Your task to perform on an android device: change alarm snooze length Image 0: 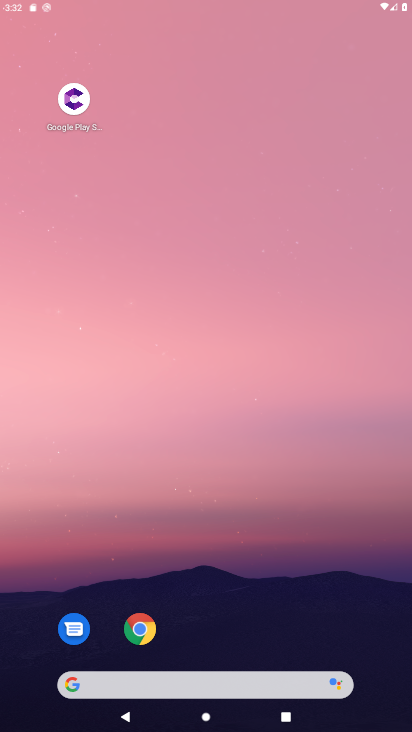
Step 0: press home button
Your task to perform on an android device: change alarm snooze length Image 1: 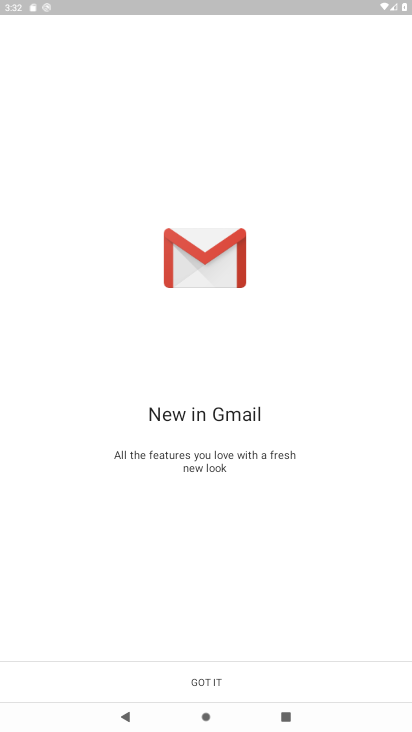
Step 1: drag from (292, 578) to (274, 116)
Your task to perform on an android device: change alarm snooze length Image 2: 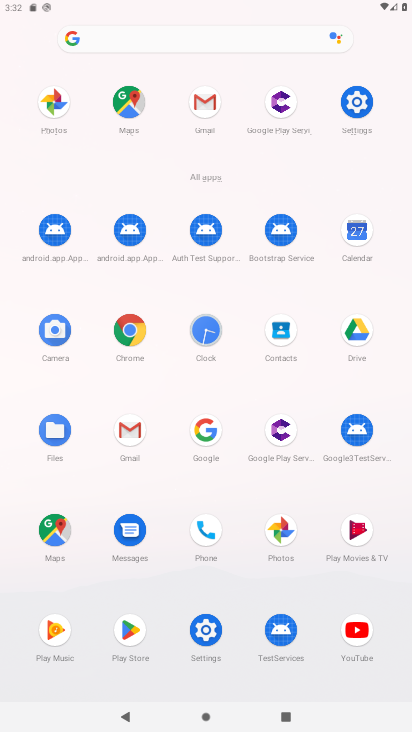
Step 2: click (207, 346)
Your task to perform on an android device: change alarm snooze length Image 3: 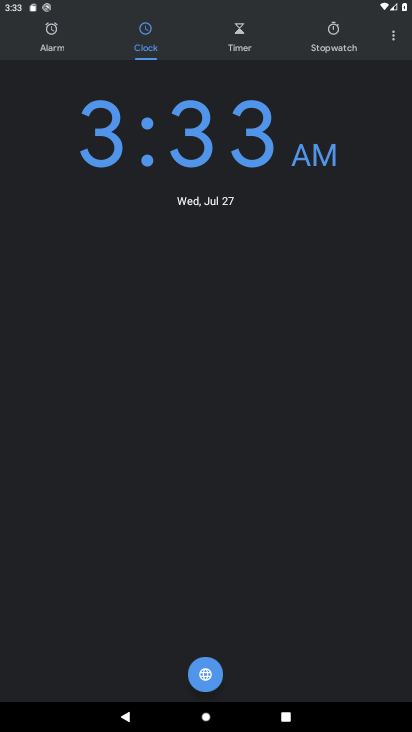
Step 3: click (395, 41)
Your task to perform on an android device: change alarm snooze length Image 4: 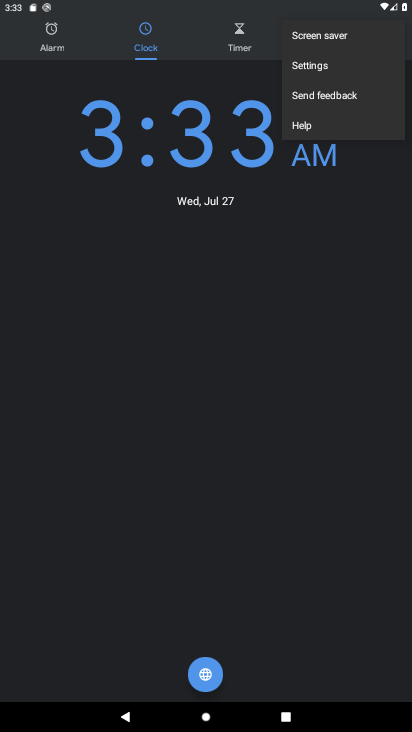
Step 4: click (316, 69)
Your task to perform on an android device: change alarm snooze length Image 5: 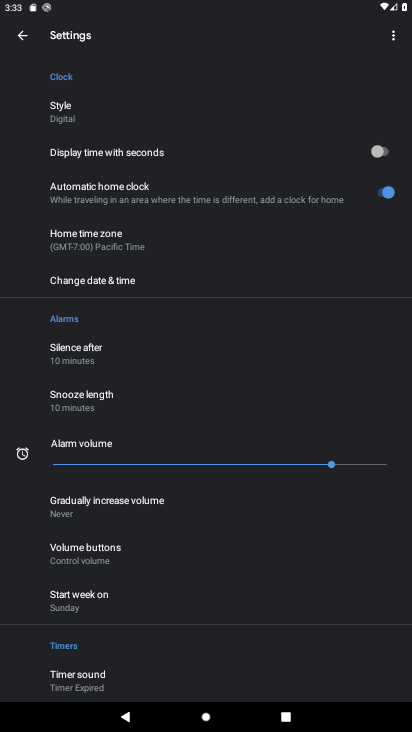
Step 5: click (96, 410)
Your task to perform on an android device: change alarm snooze length Image 6: 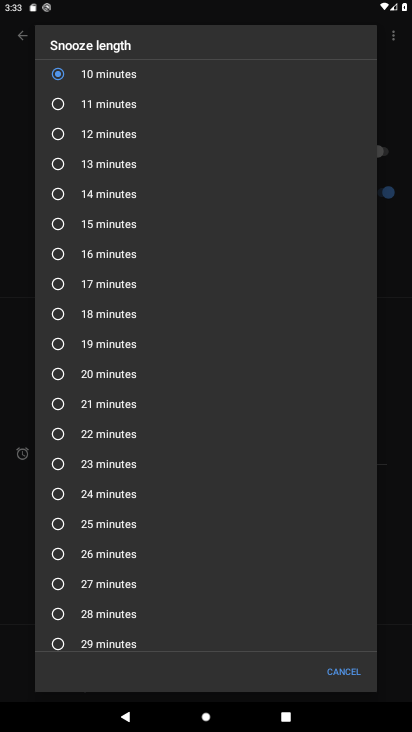
Step 6: click (87, 626)
Your task to perform on an android device: change alarm snooze length Image 7: 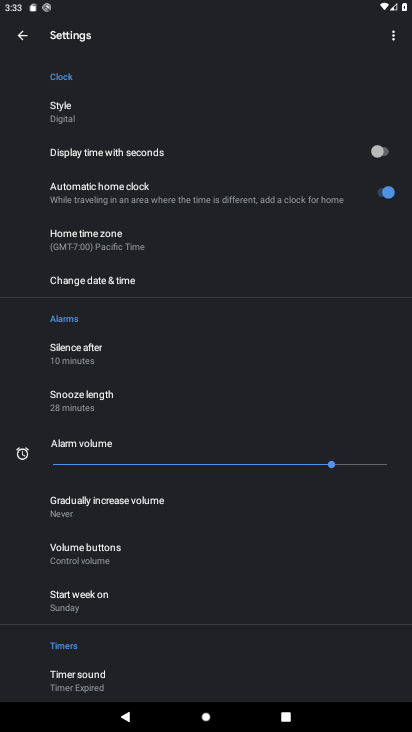
Step 7: task complete